Your task to perform on an android device: Toggle the flashlight Image 0: 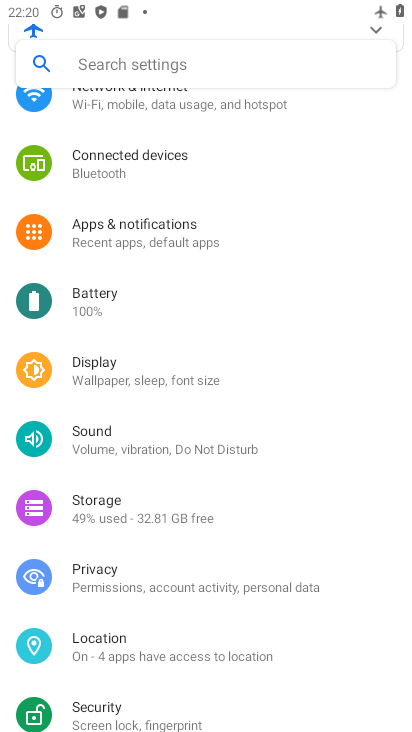
Step 0: click (185, 69)
Your task to perform on an android device: Toggle the flashlight Image 1: 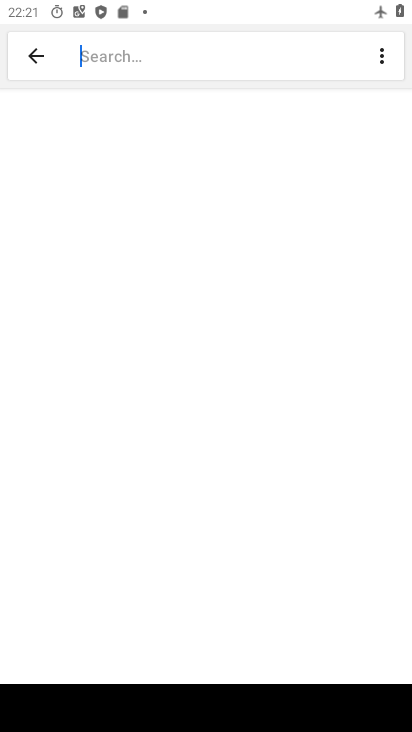
Step 1: type "flash light"
Your task to perform on an android device: Toggle the flashlight Image 2: 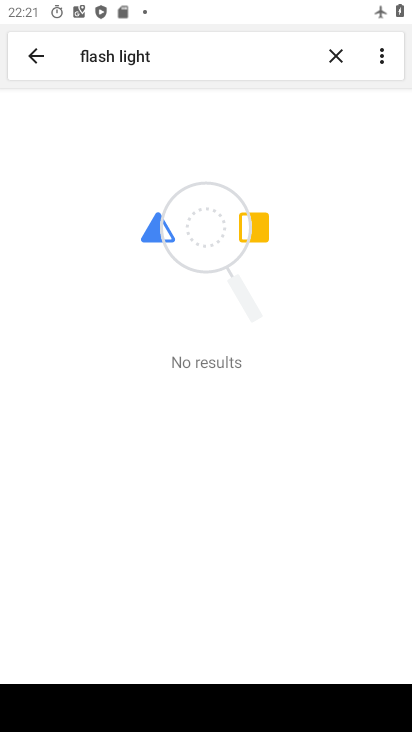
Step 2: task complete